Your task to perform on an android device: Open ESPN.com Image 0: 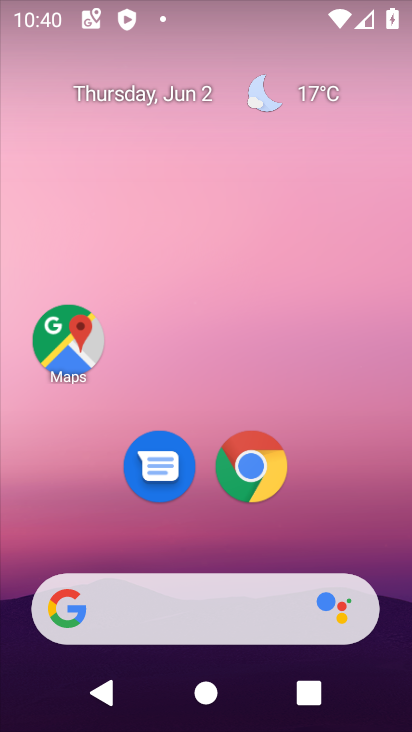
Step 0: click (248, 457)
Your task to perform on an android device: Open ESPN.com Image 1: 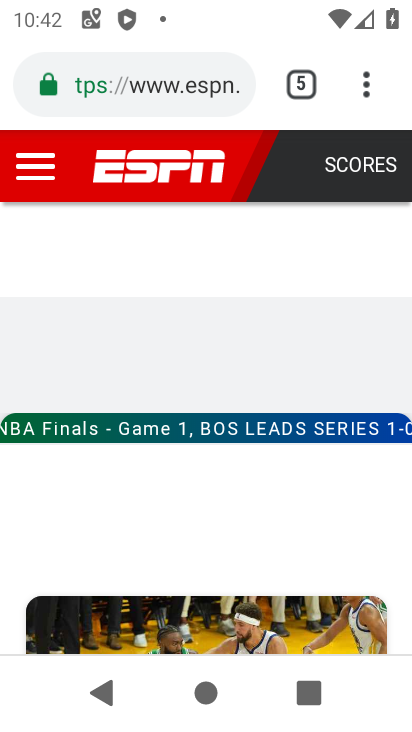
Step 1: task complete